Your task to perform on an android device: What is the news today? Image 0: 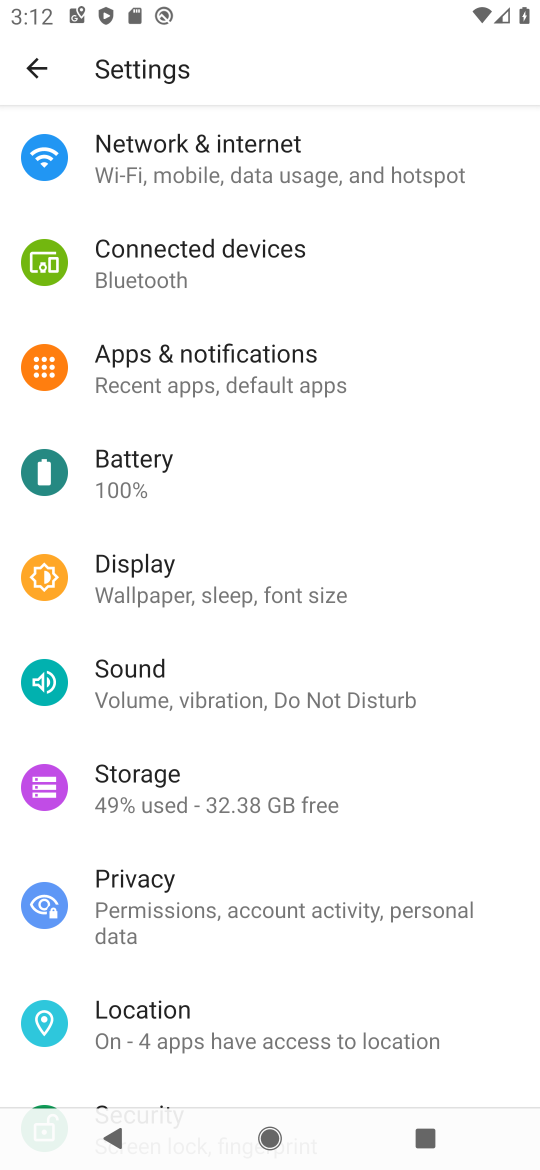
Step 0: press home button
Your task to perform on an android device: What is the news today? Image 1: 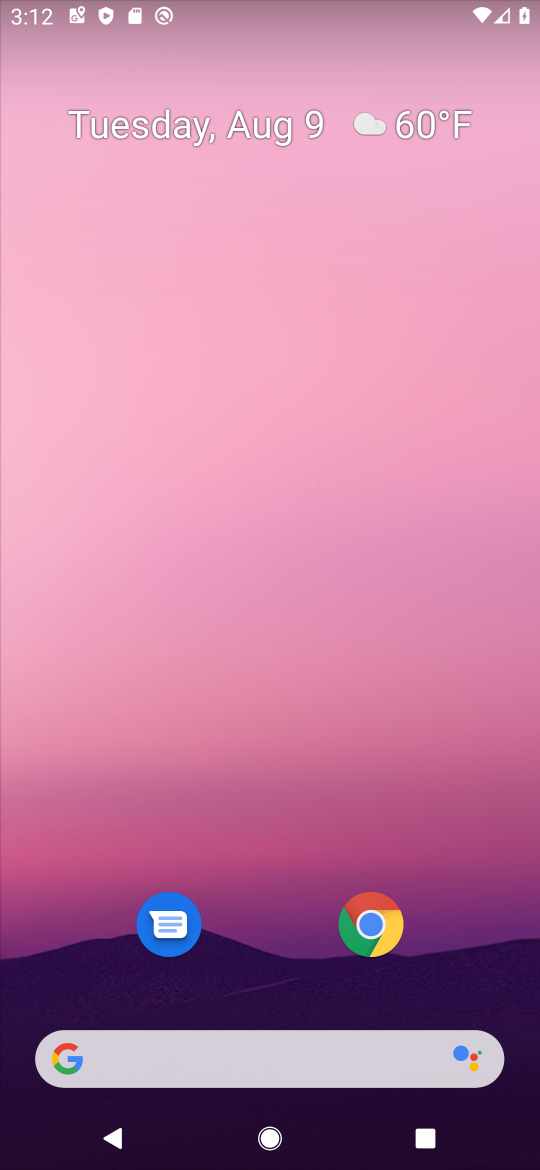
Step 1: click (352, 1060)
Your task to perform on an android device: What is the news today? Image 2: 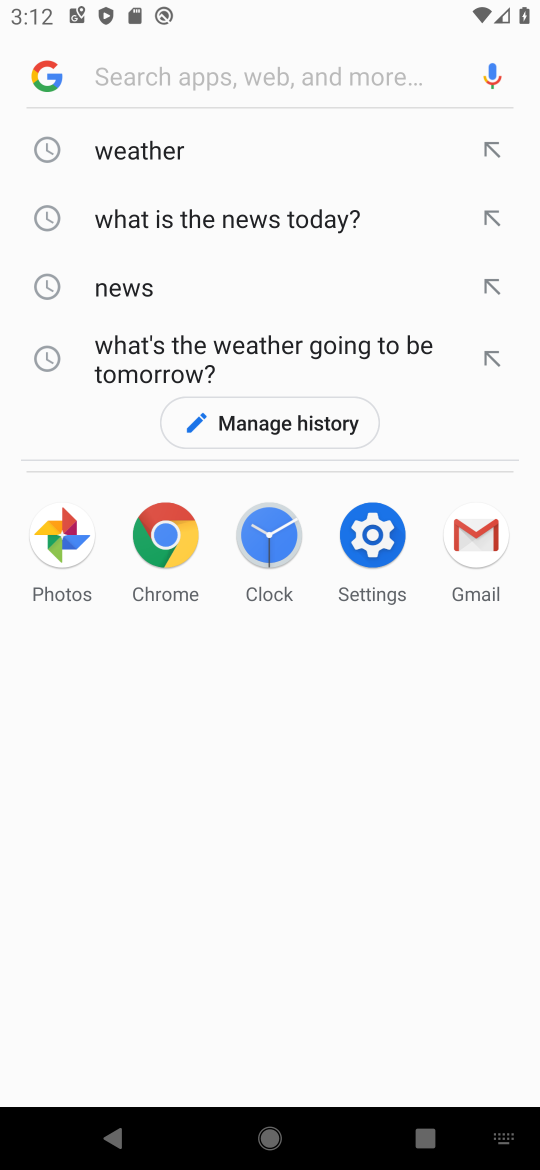
Step 2: click (146, 282)
Your task to perform on an android device: What is the news today? Image 3: 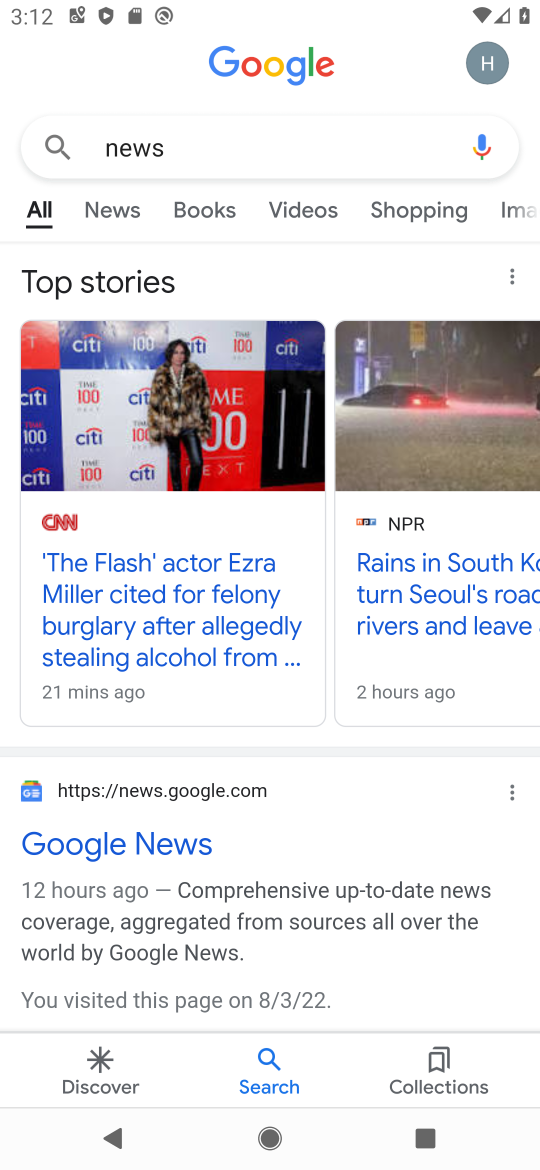
Step 3: click (128, 211)
Your task to perform on an android device: What is the news today? Image 4: 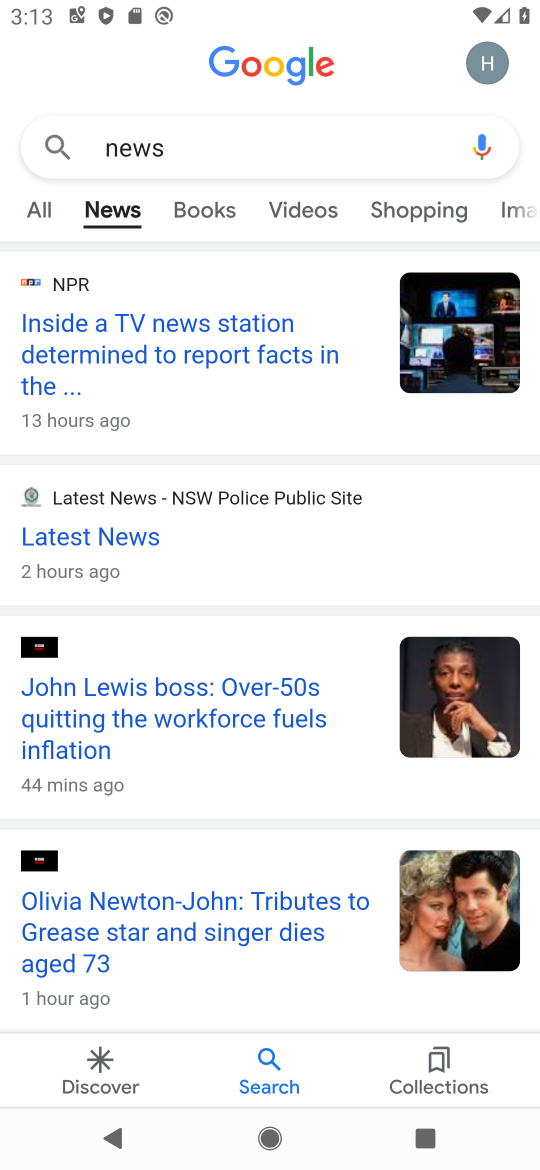
Step 4: task complete